Your task to perform on an android device: Go to Maps Image 0: 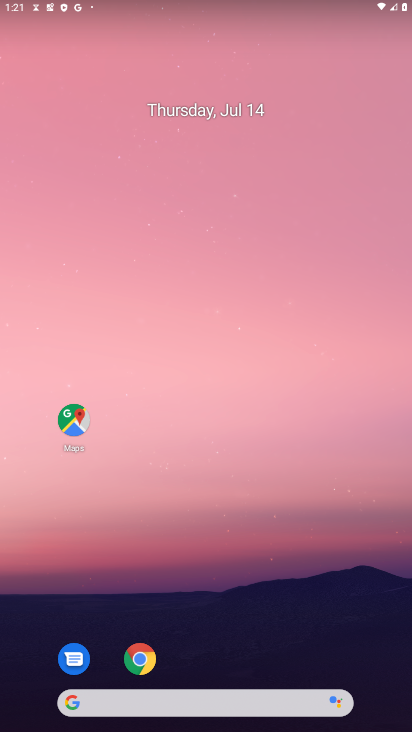
Step 0: click (70, 428)
Your task to perform on an android device: Go to Maps Image 1: 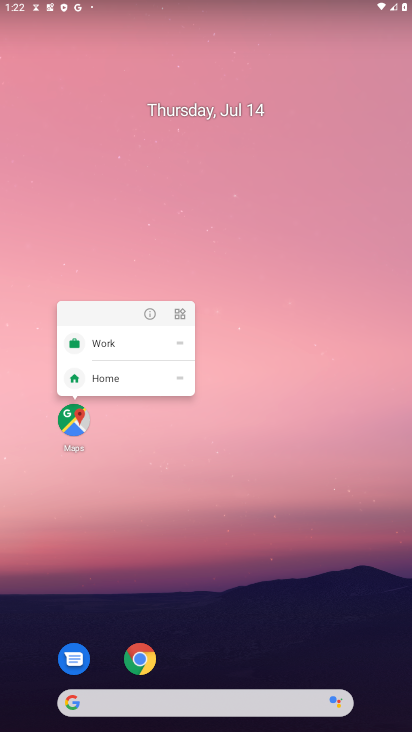
Step 1: click (67, 425)
Your task to perform on an android device: Go to Maps Image 2: 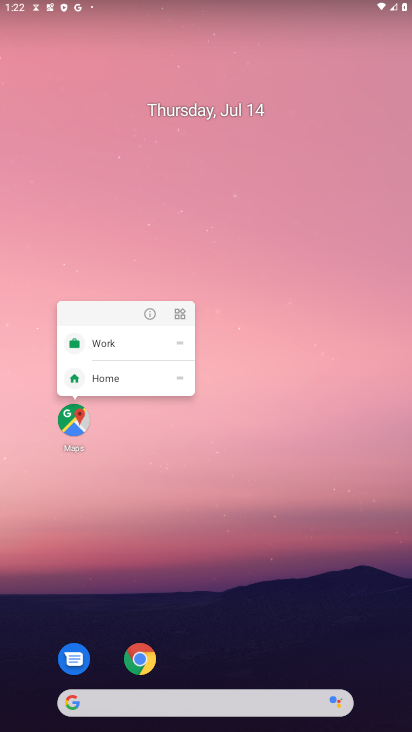
Step 2: click (66, 419)
Your task to perform on an android device: Go to Maps Image 3: 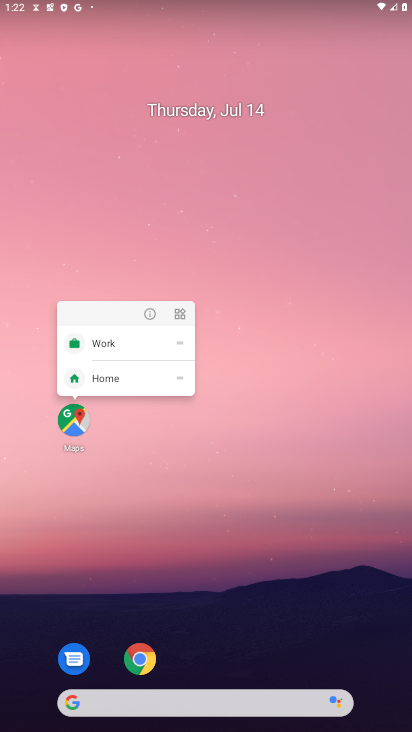
Step 3: click (67, 418)
Your task to perform on an android device: Go to Maps Image 4: 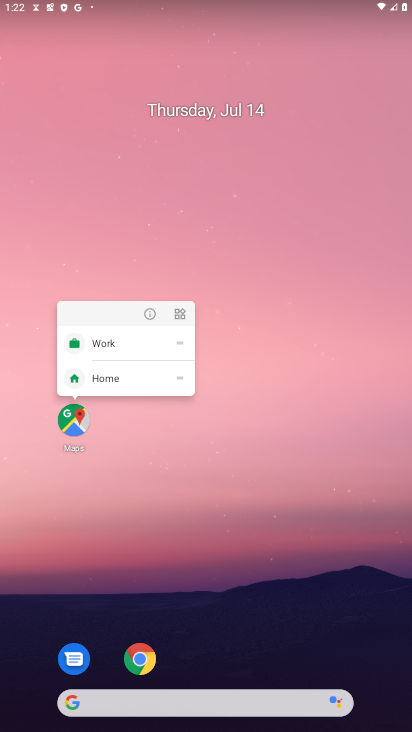
Step 4: task complete